Your task to perform on an android device: see creations saved in the google photos Image 0: 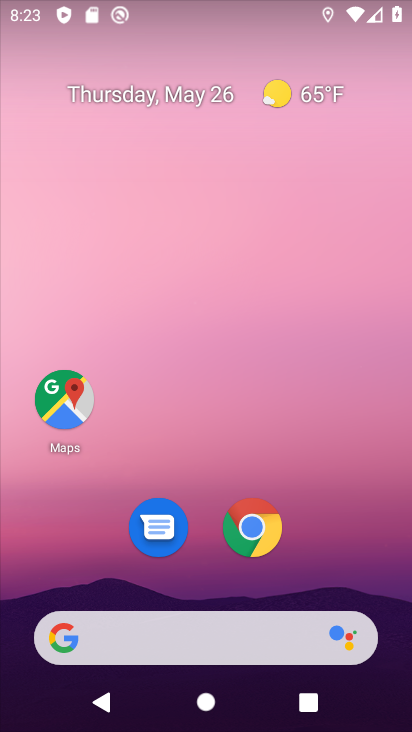
Step 0: drag from (356, 466) to (294, 46)
Your task to perform on an android device: see creations saved in the google photos Image 1: 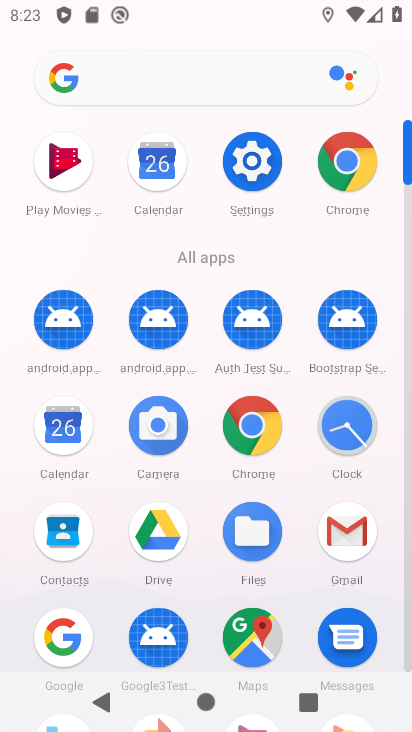
Step 1: drag from (408, 501) to (346, 128)
Your task to perform on an android device: see creations saved in the google photos Image 2: 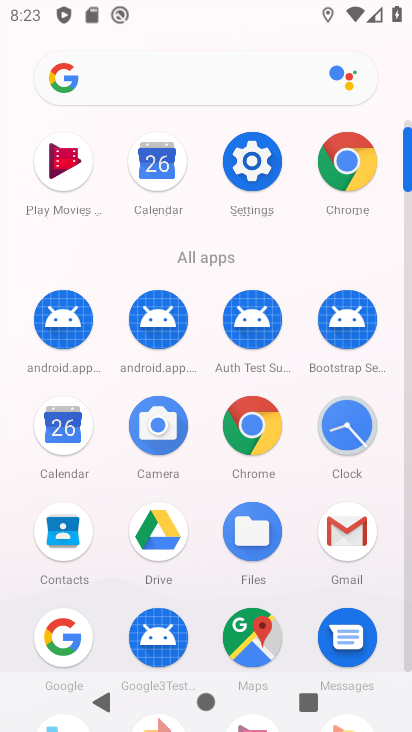
Step 2: drag from (408, 494) to (396, 173)
Your task to perform on an android device: see creations saved in the google photos Image 3: 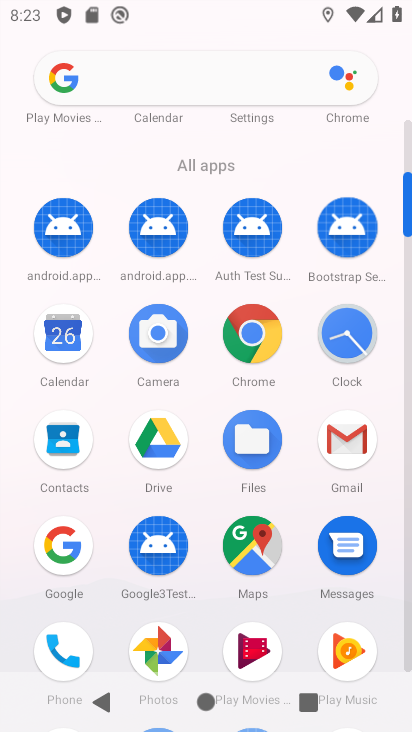
Step 3: click (156, 495)
Your task to perform on an android device: see creations saved in the google photos Image 4: 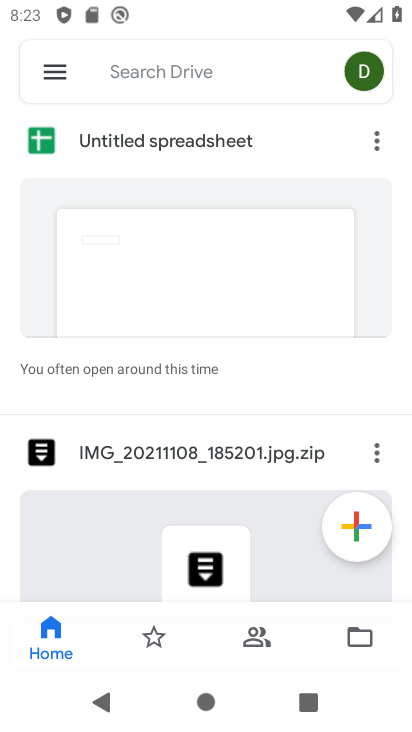
Step 4: press home button
Your task to perform on an android device: see creations saved in the google photos Image 5: 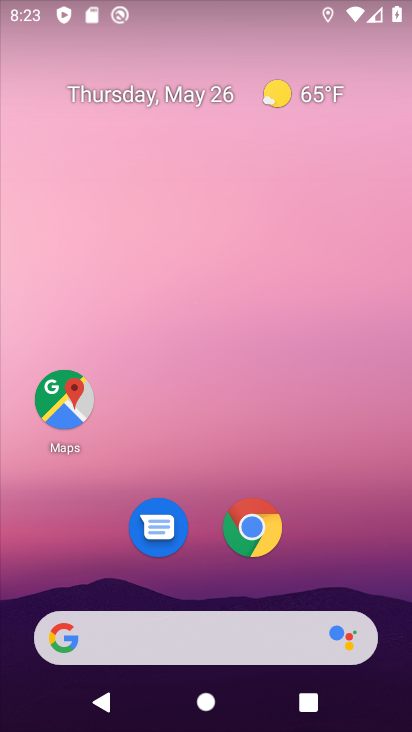
Step 5: drag from (373, 527) to (357, 42)
Your task to perform on an android device: see creations saved in the google photos Image 6: 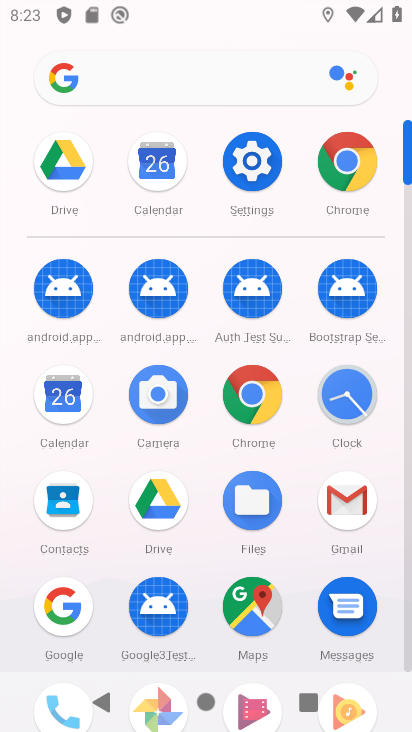
Step 6: drag from (347, 498) to (339, 81)
Your task to perform on an android device: see creations saved in the google photos Image 7: 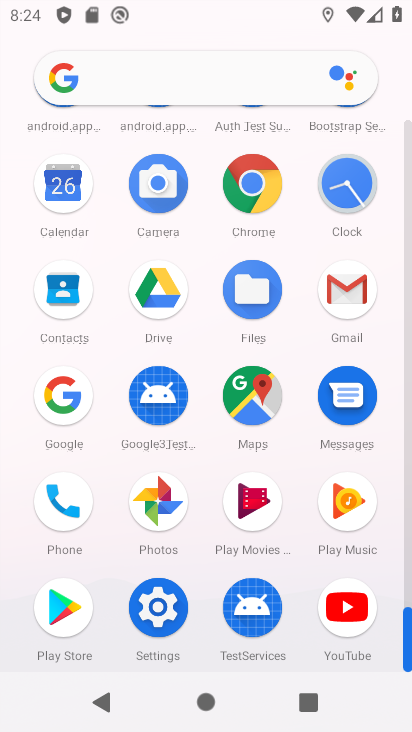
Step 7: click (153, 510)
Your task to perform on an android device: see creations saved in the google photos Image 8: 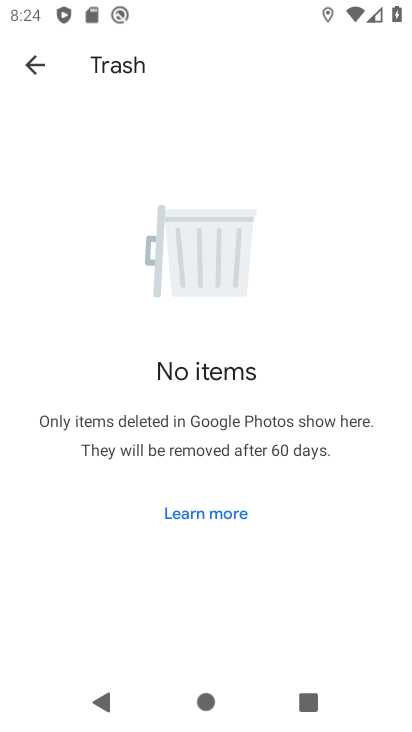
Step 8: click (193, 517)
Your task to perform on an android device: see creations saved in the google photos Image 9: 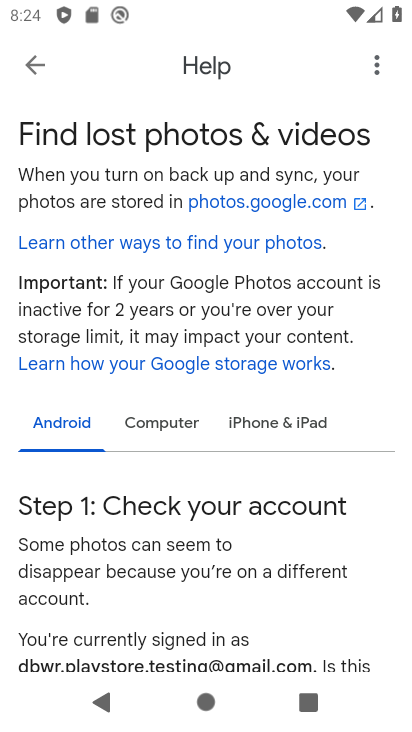
Step 9: click (30, 49)
Your task to perform on an android device: see creations saved in the google photos Image 10: 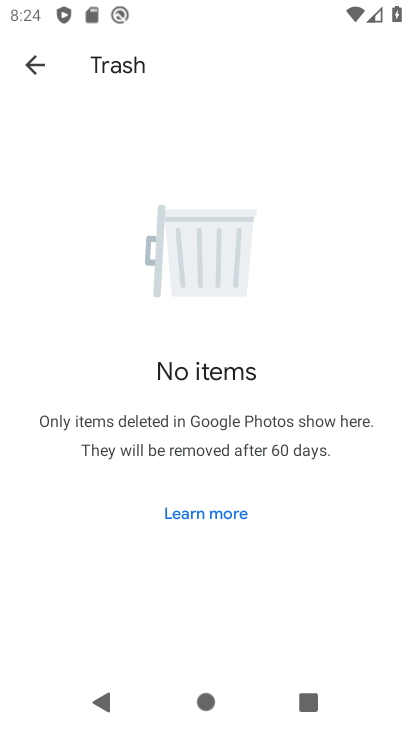
Step 10: click (33, 46)
Your task to perform on an android device: see creations saved in the google photos Image 11: 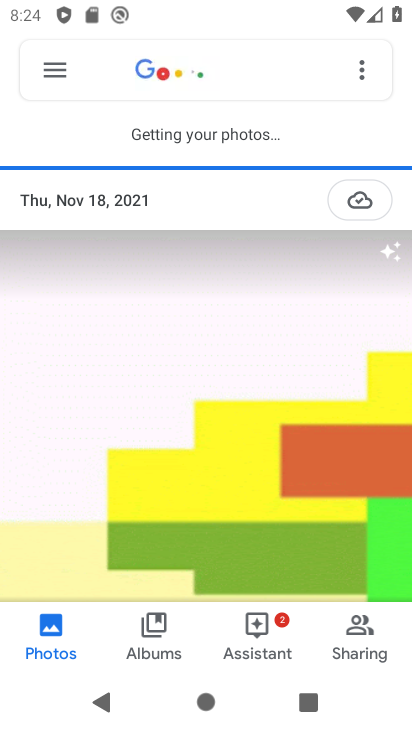
Step 11: click (147, 605)
Your task to perform on an android device: see creations saved in the google photos Image 12: 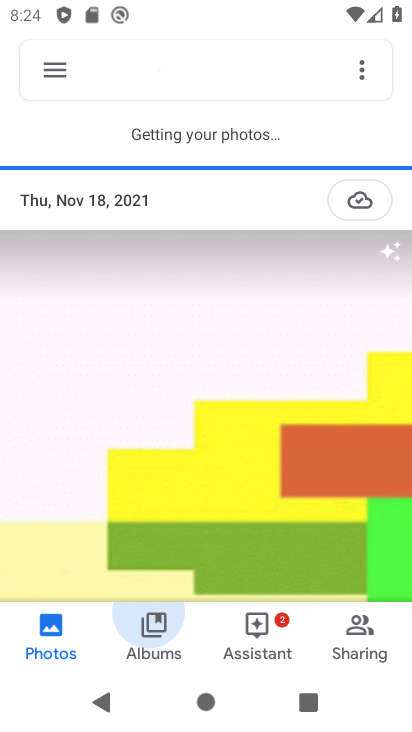
Step 12: click (158, 626)
Your task to perform on an android device: see creations saved in the google photos Image 13: 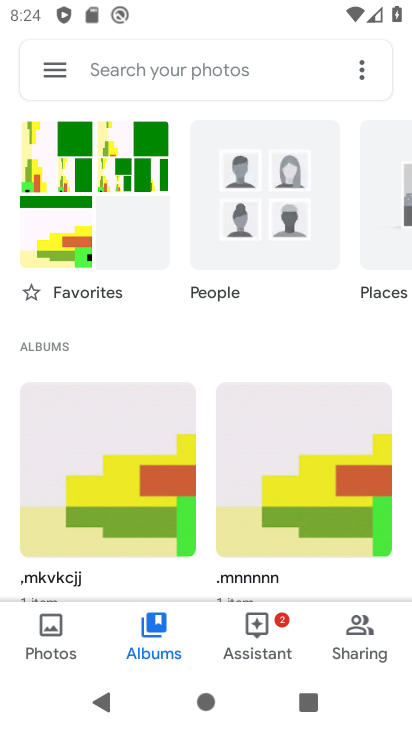
Step 13: task complete